Your task to perform on an android device: Open Chrome and go to settings Image 0: 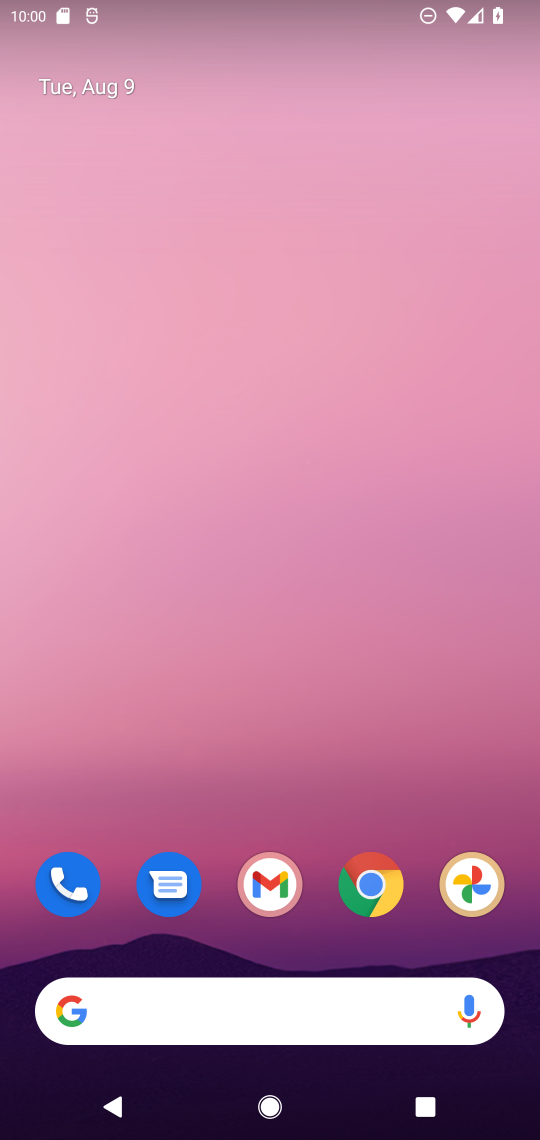
Step 0: click (372, 884)
Your task to perform on an android device: Open Chrome and go to settings Image 1: 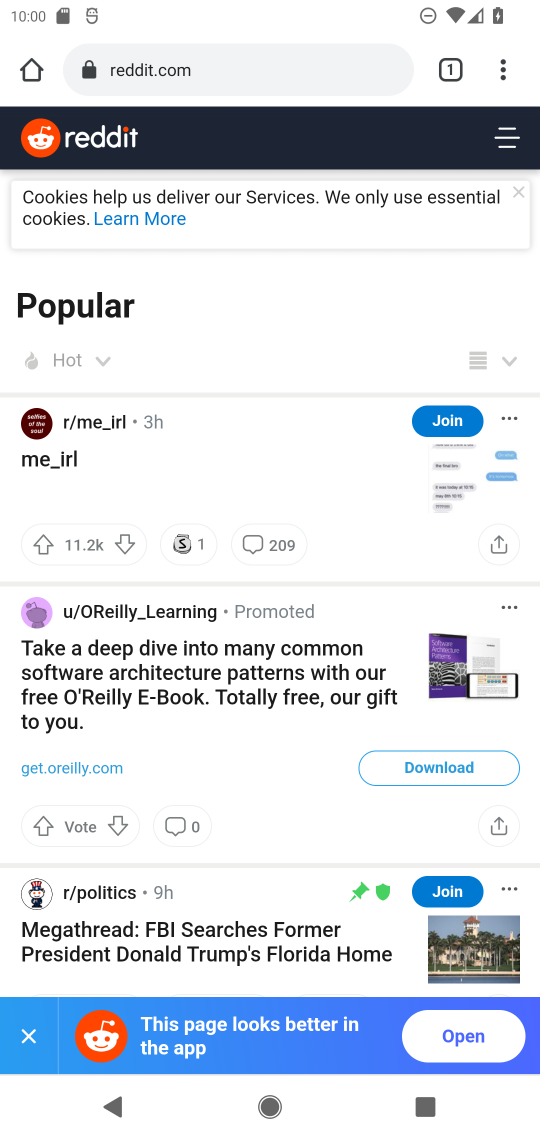
Step 1: click (509, 68)
Your task to perform on an android device: Open Chrome and go to settings Image 2: 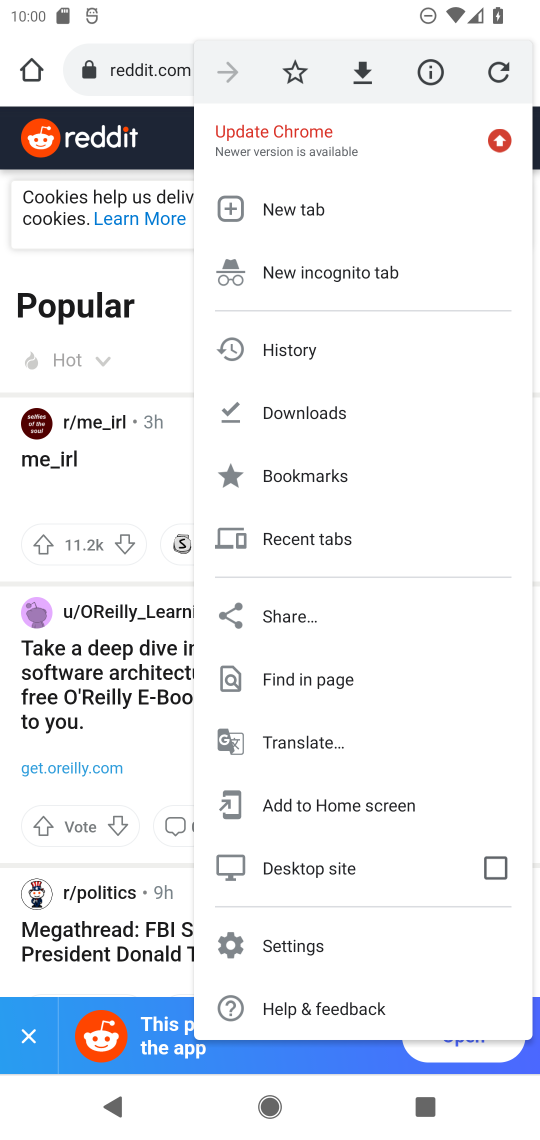
Step 2: click (283, 945)
Your task to perform on an android device: Open Chrome and go to settings Image 3: 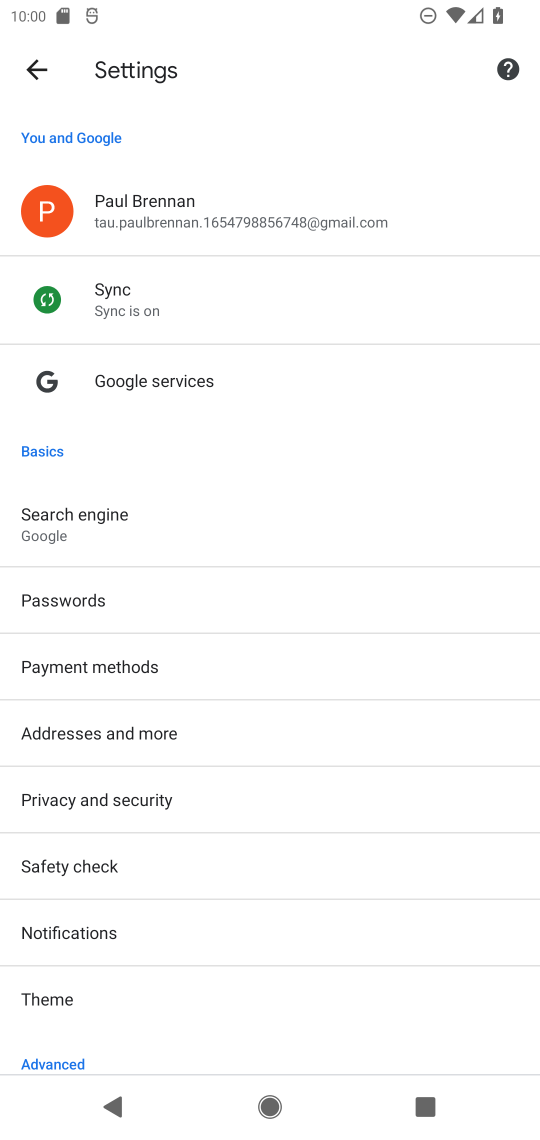
Step 3: task complete